Your task to perform on an android device: Show me productivity apps on the Play Store Image 0: 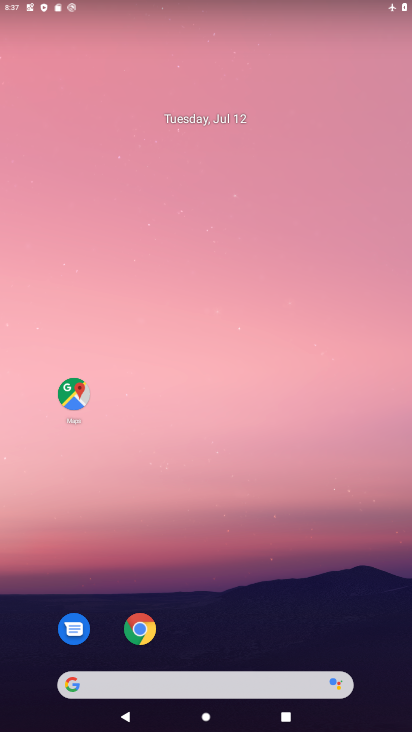
Step 0: drag from (251, 638) to (260, 202)
Your task to perform on an android device: Show me productivity apps on the Play Store Image 1: 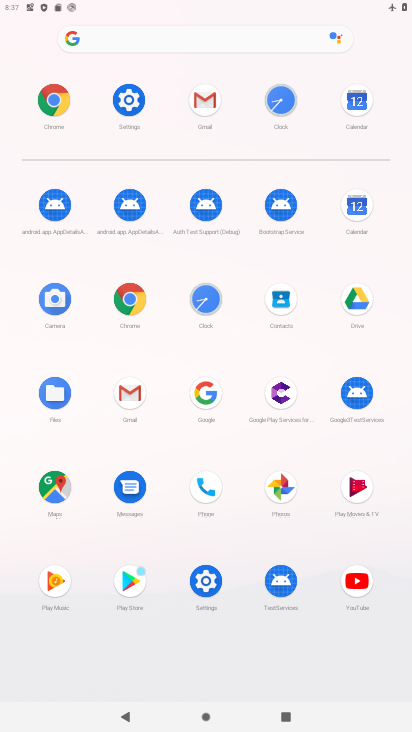
Step 1: click (134, 576)
Your task to perform on an android device: Show me productivity apps on the Play Store Image 2: 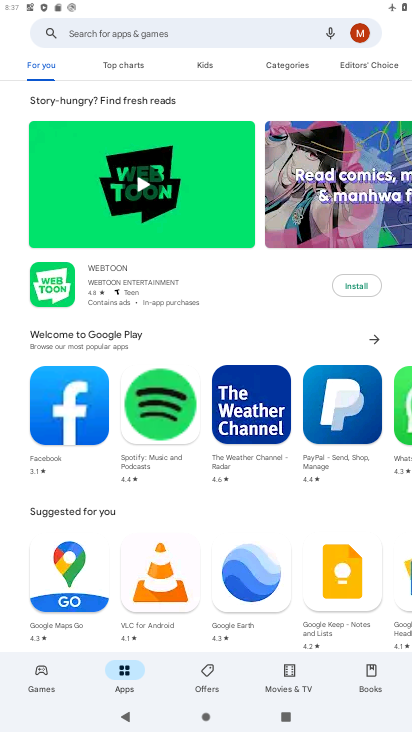
Step 2: task complete